Your task to perform on an android device: toggle location history Image 0: 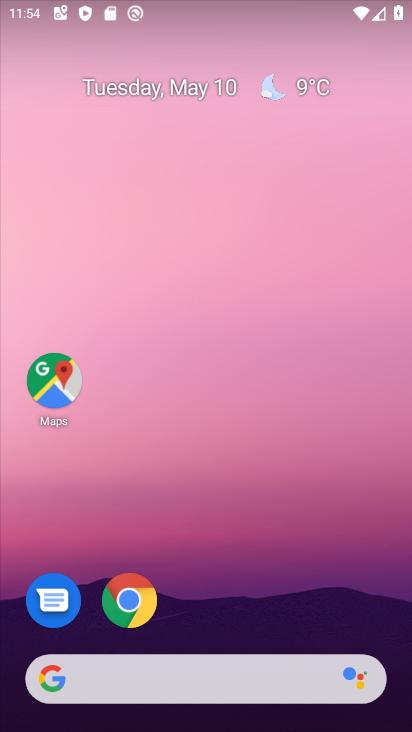
Step 0: click (300, 412)
Your task to perform on an android device: toggle location history Image 1: 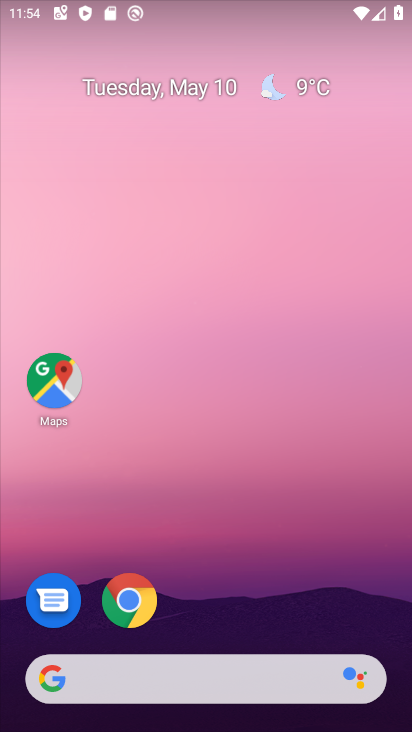
Step 1: drag from (254, 727) to (289, 19)
Your task to perform on an android device: toggle location history Image 2: 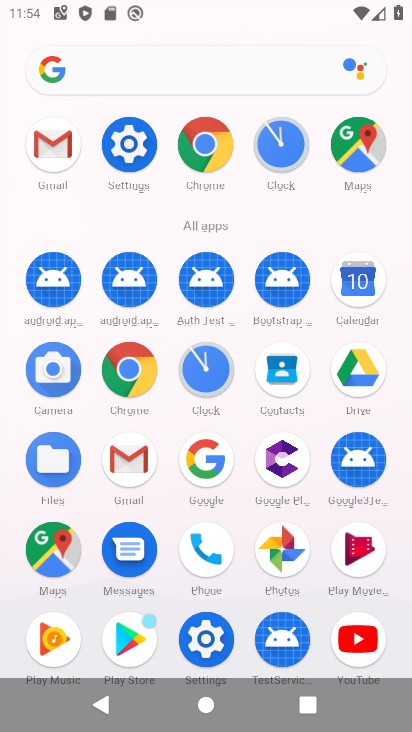
Step 2: click (127, 157)
Your task to perform on an android device: toggle location history Image 3: 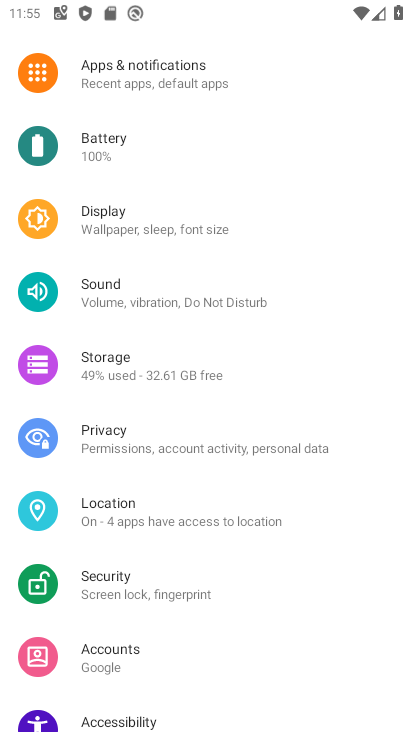
Step 3: click (182, 508)
Your task to perform on an android device: toggle location history Image 4: 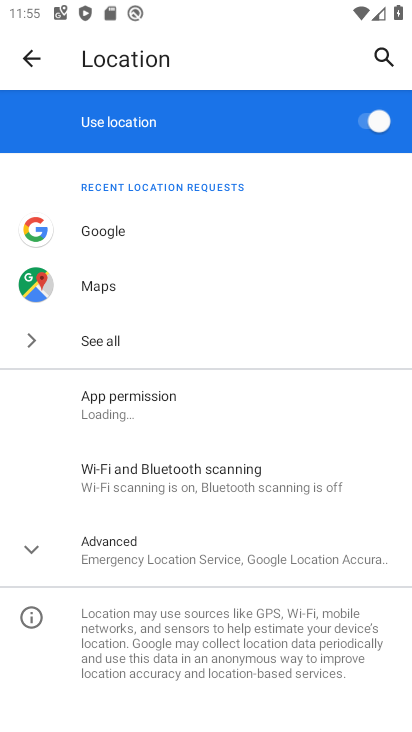
Step 4: click (230, 550)
Your task to perform on an android device: toggle location history Image 5: 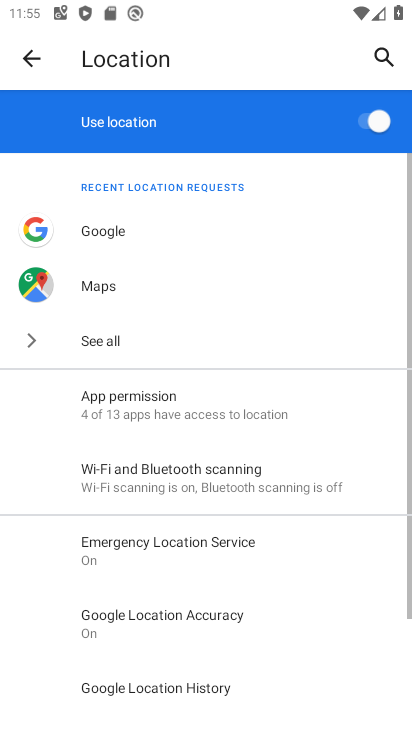
Step 5: click (217, 706)
Your task to perform on an android device: toggle location history Image 6: 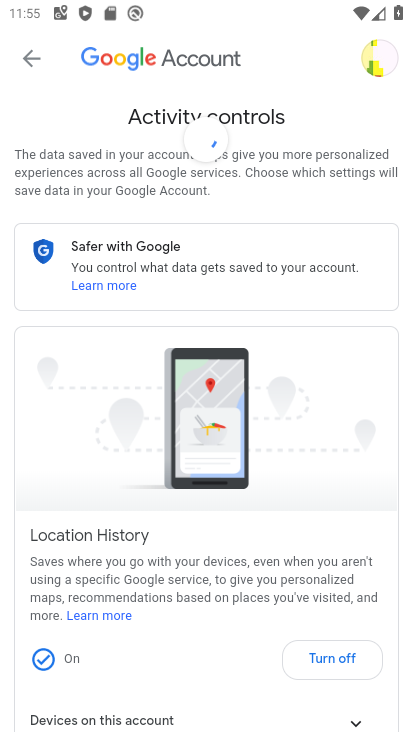
Step 6: click (351, 664)
Your task to perform on an android device: toggle location history Image 7: 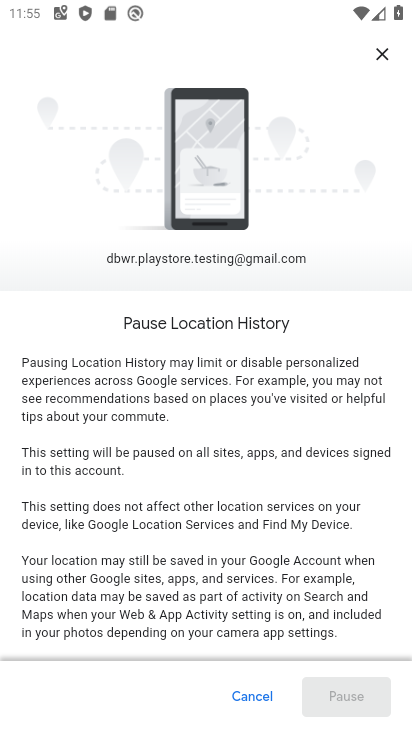
Step 7: drag from (292, 590) to (241, 20)
Your task to perform on an android device: toggle location history Image 8: 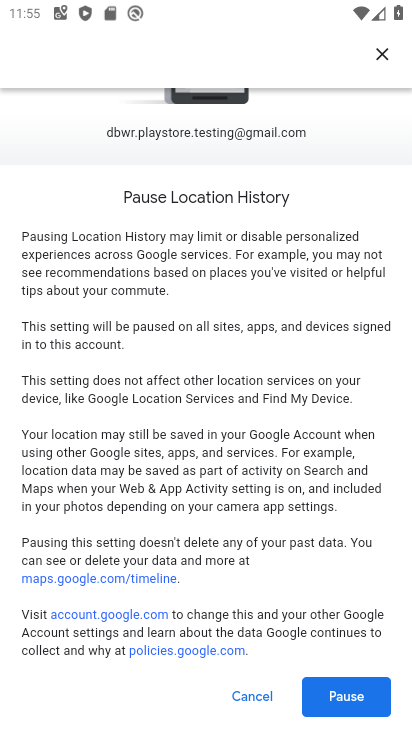
Step 8: click (357, 696)
Your task to perform on an android device: toggle location history Image 9: 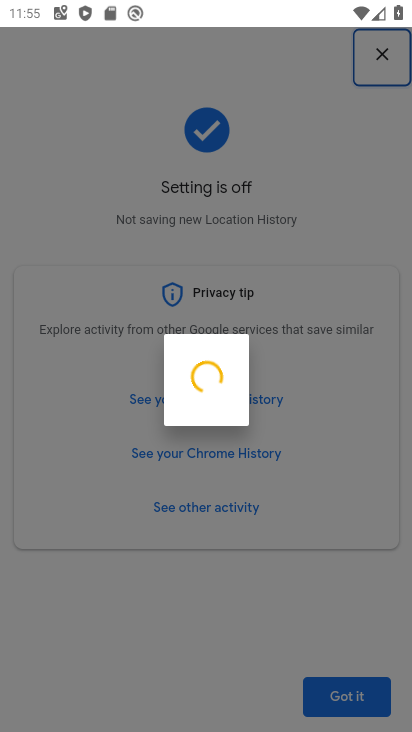
Step 9: click (352, 702)
Your task to perform on an android device: toggle location history Image 10: 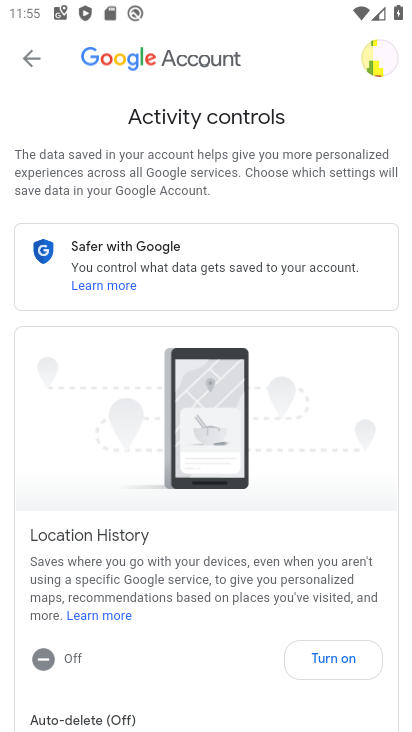
Step 10: task complete